Your task to perform on an android device: add a contact Image 0: 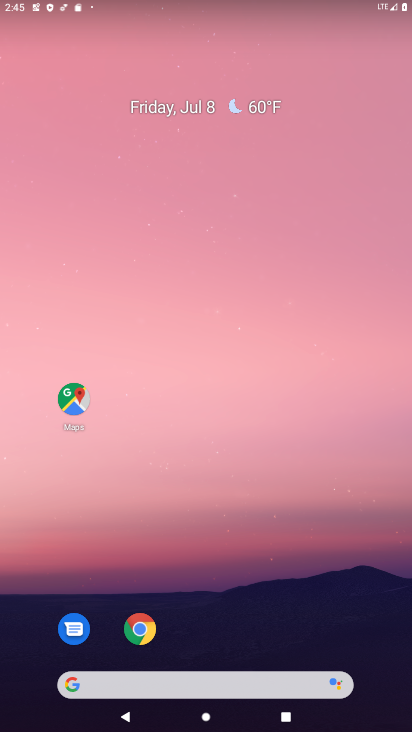
Step 0: drag from (218, 641) to (249, 223)
Your task to perform on an android device: add a contact Image 1: 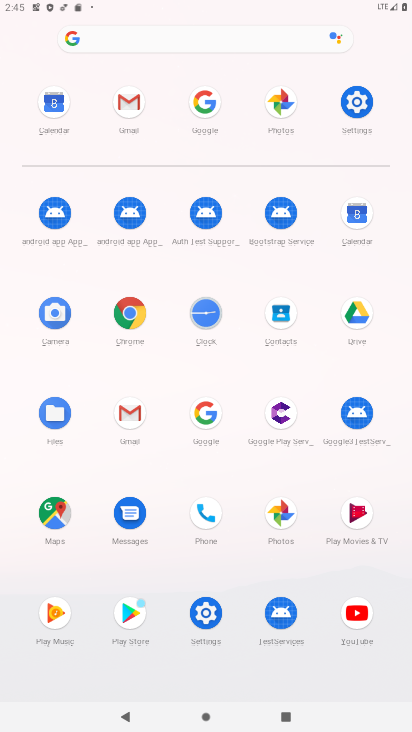
Step 1: click (276, 324)
Your task to perform on an android device: add a contact Image 2: 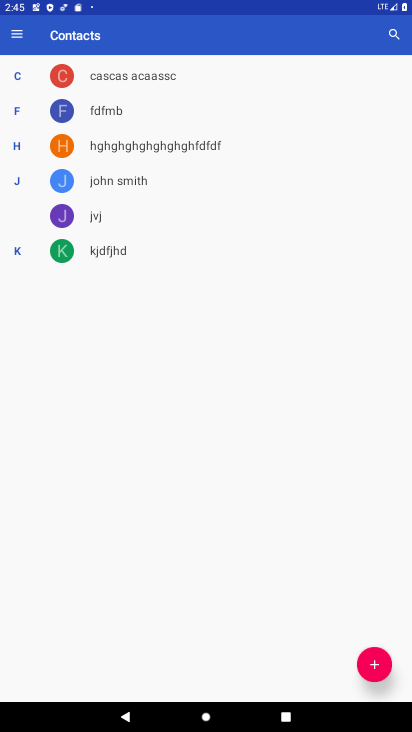
Step 2: click (379, 667)
Your task to perform on an android device: add a contact Image 3: 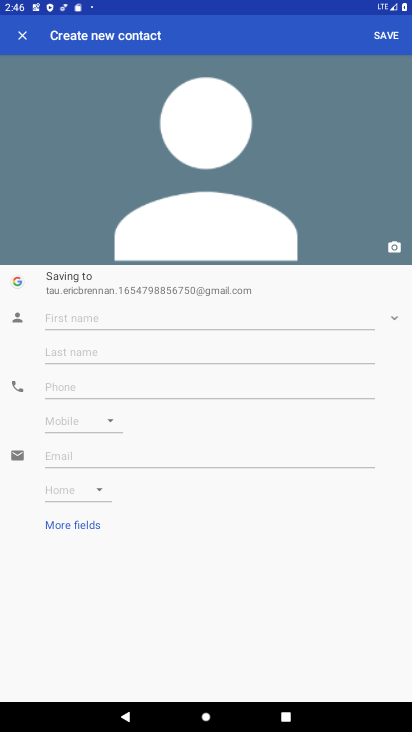
Step 3: click (89, 320)
Your task to perform on an android device: add a contact Image 4: 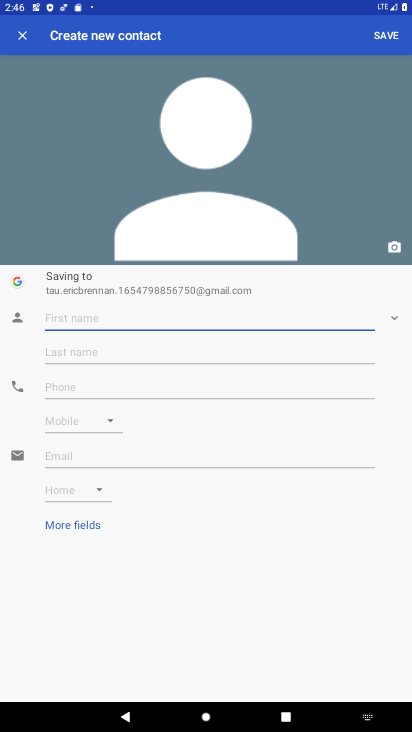
Step 4: type "jkbjb"
Your task to perform on an android device: add a contact Image 5: 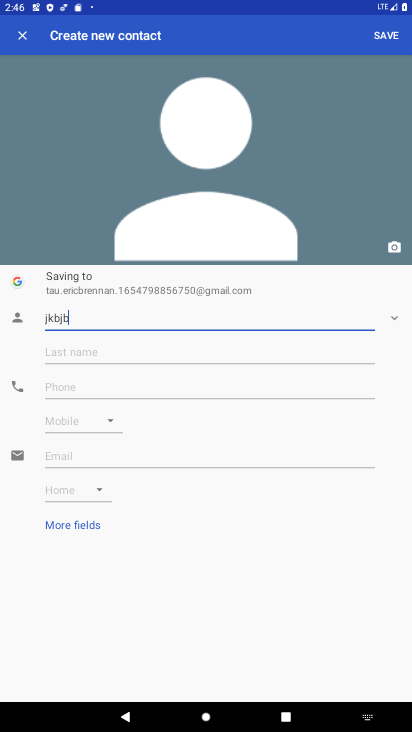
Step 5: click (78, 391)
Your task to perform on an android device: add a contact Image 6: 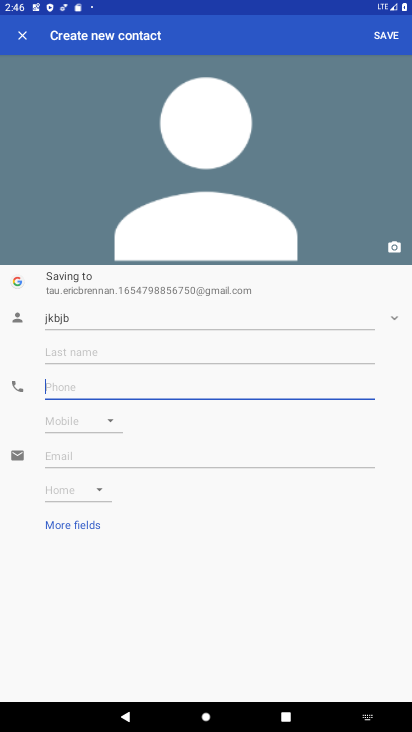
Step 6: type "8778557664"
Your task to perform on an android device: add a contact Image 7: 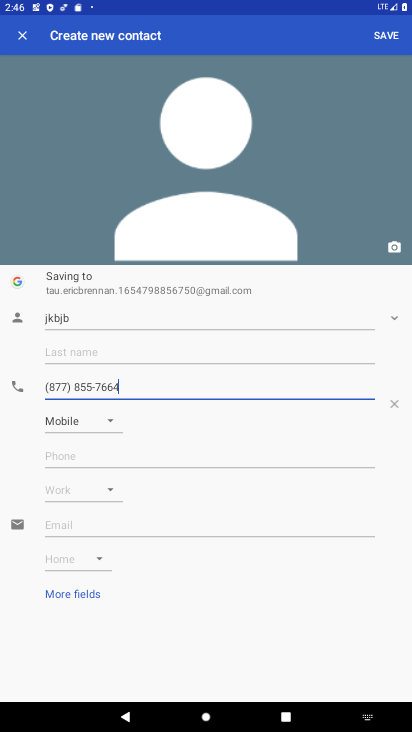
Step 7: click (381, 36)
Your task to perform on an android device: add a contact Image 8: 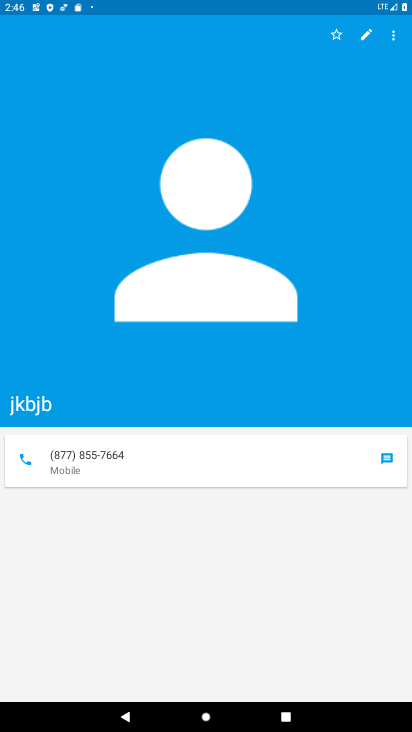
Step 8: task complete